Your task to perform on an android device: What's the weather? Image 0: 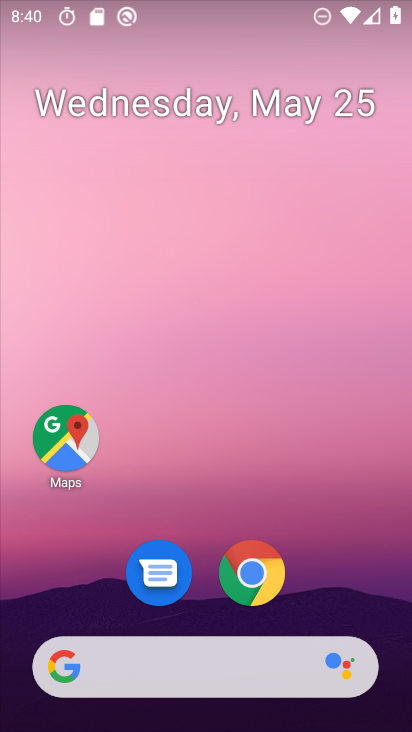
Step 0: drag from (0, 263) to (402, 291)
Your task to perform on an android device: What's the weather? Image 1: 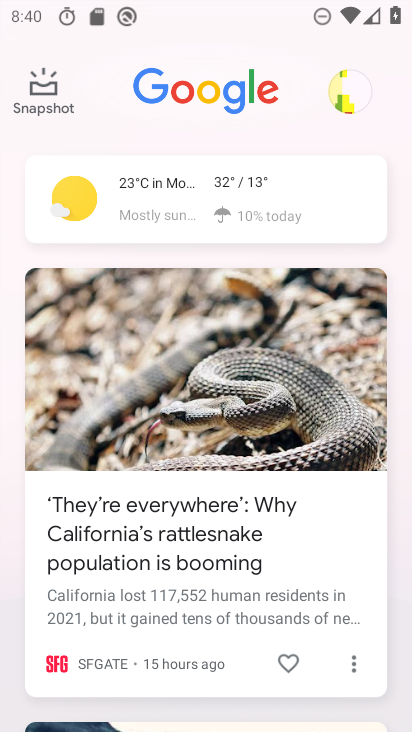
Step 1: click (232, 186)
Your task to perform on an android device: What's the weather? Image 2: 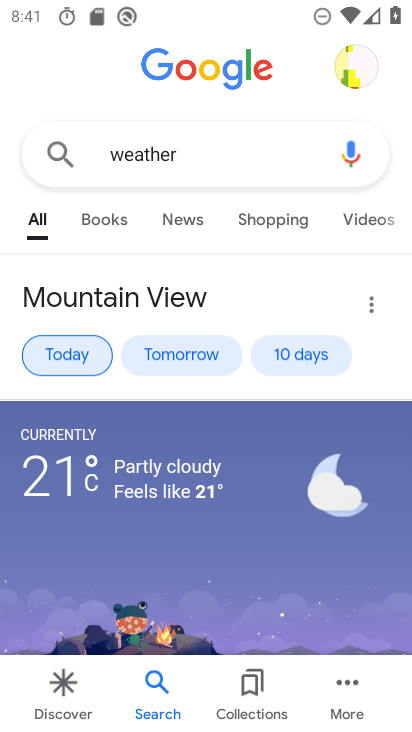
Step 2: click (39, 358)
Your task to perform on an android device: What's the weather? Image 3: 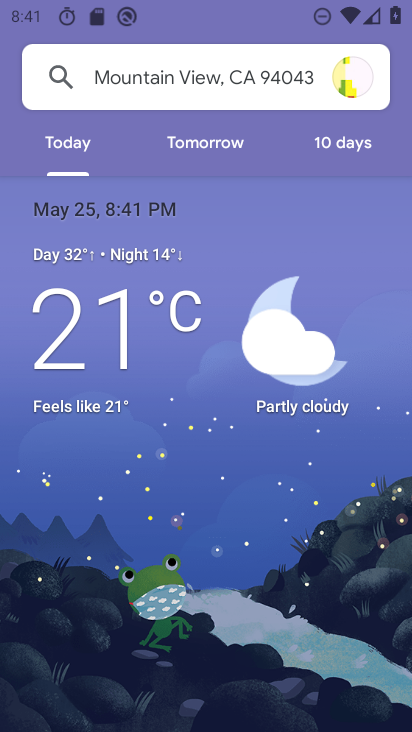
Step 3: task complete